Your task to perform on an android device: toggle improve location accuracy Image 0: 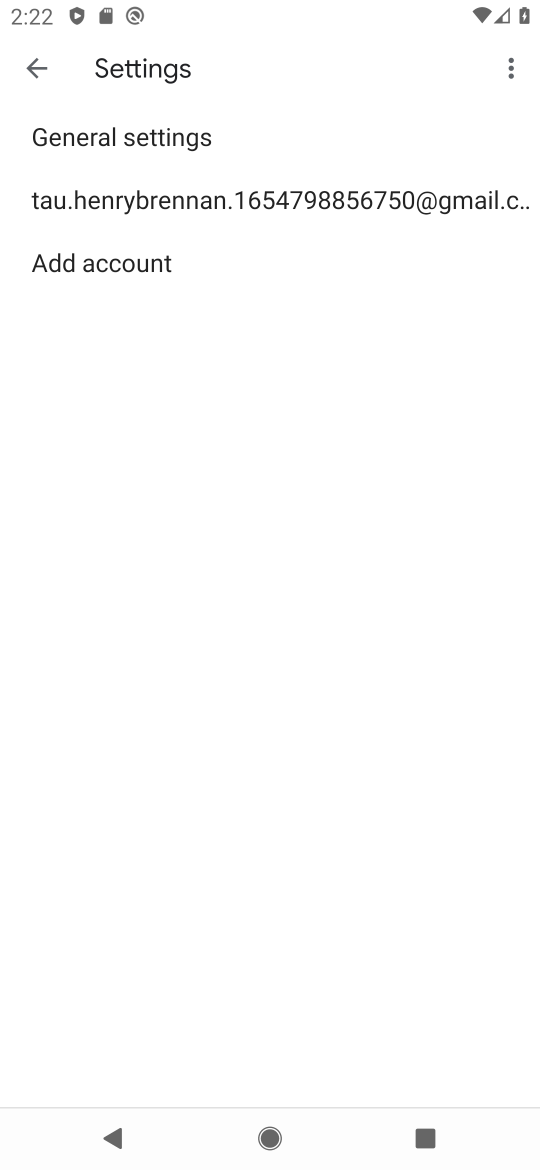
Step 0: press home button
Your task to perform on an android device: toggle improve location accuracy Image 1: 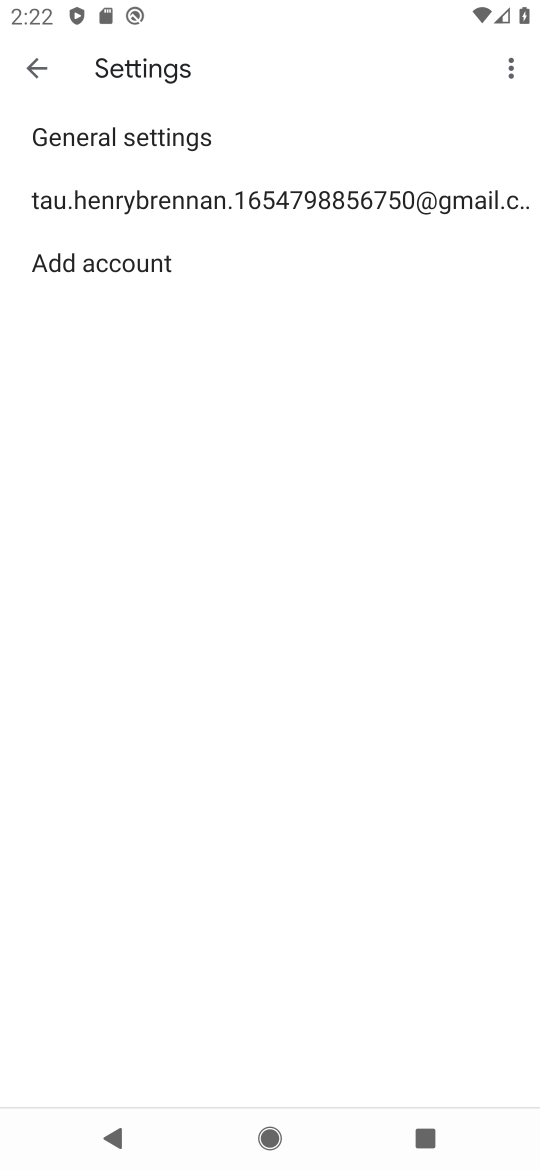
Step 1: press home button
Your task to perform on an android device: toggle improve location accuracy Image 2: 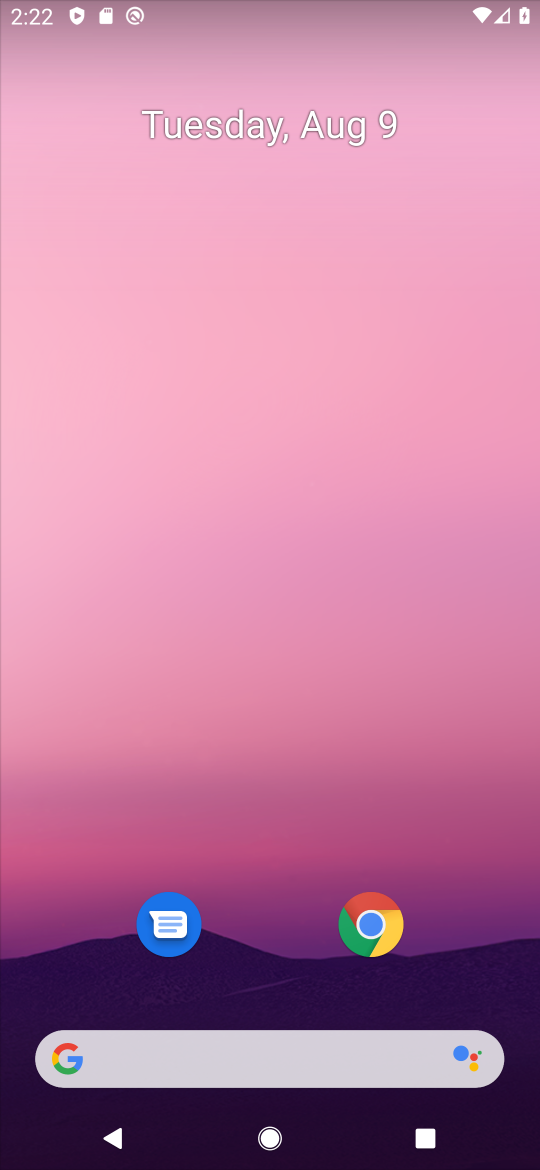
Step 2: drag from (274, 872) to (286, 0)
Your task to perform on an android device: toggle improve location accuracy Image 3: 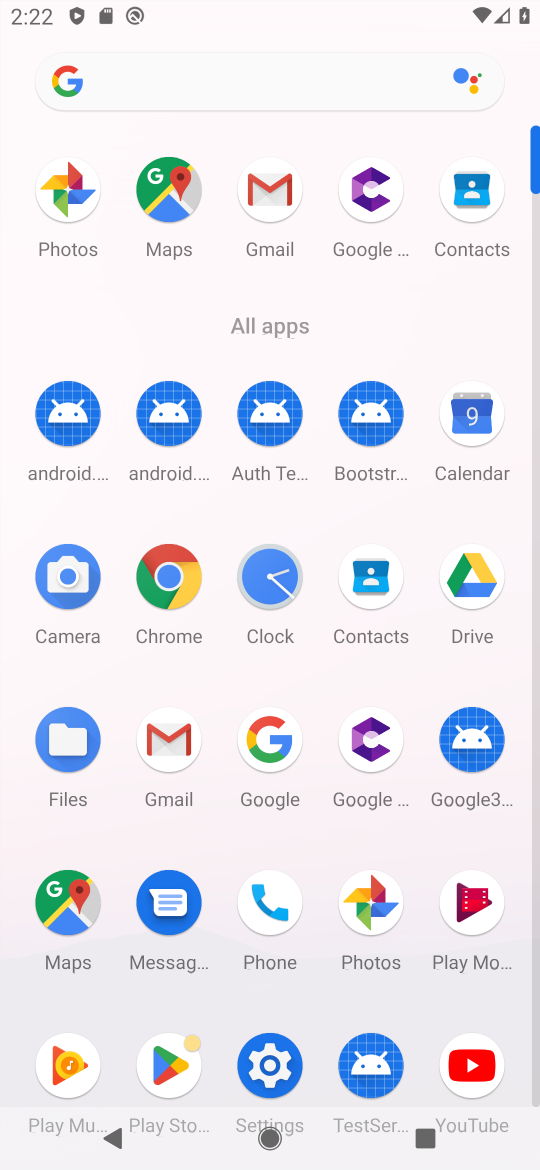
Step 3: click (273, 1063)
Your task to perform on an android device: toggle improve location accuracy Image 4: 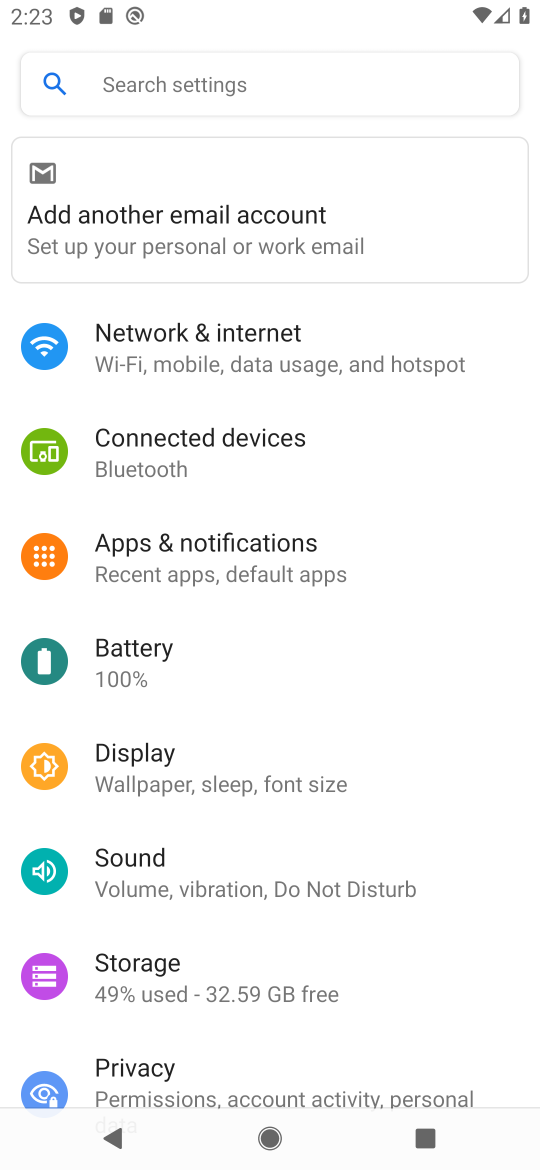
Step 4: drag from (266, 700) to (297, 47)
Your task to perform on an android device: toggle improve location accuracy Image 5: 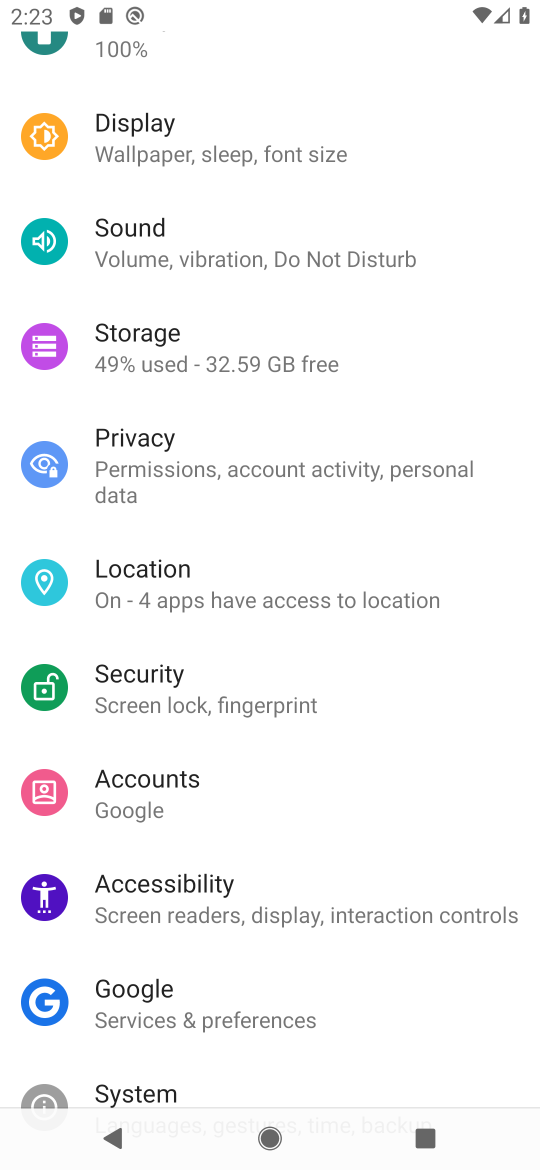
Step 5: click (238, 590)
Your task to perform on an android device: toggle improve location accuracy Image 6: 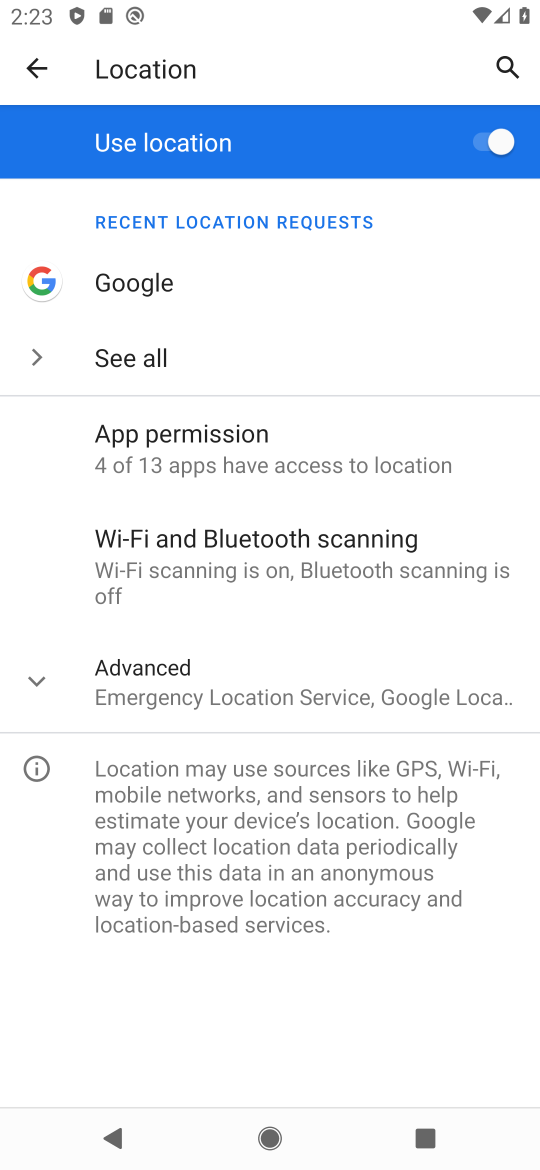
Step 6: click (39, 671)
Your task to perform on an android device: toggle improve location accuracy Image 7: 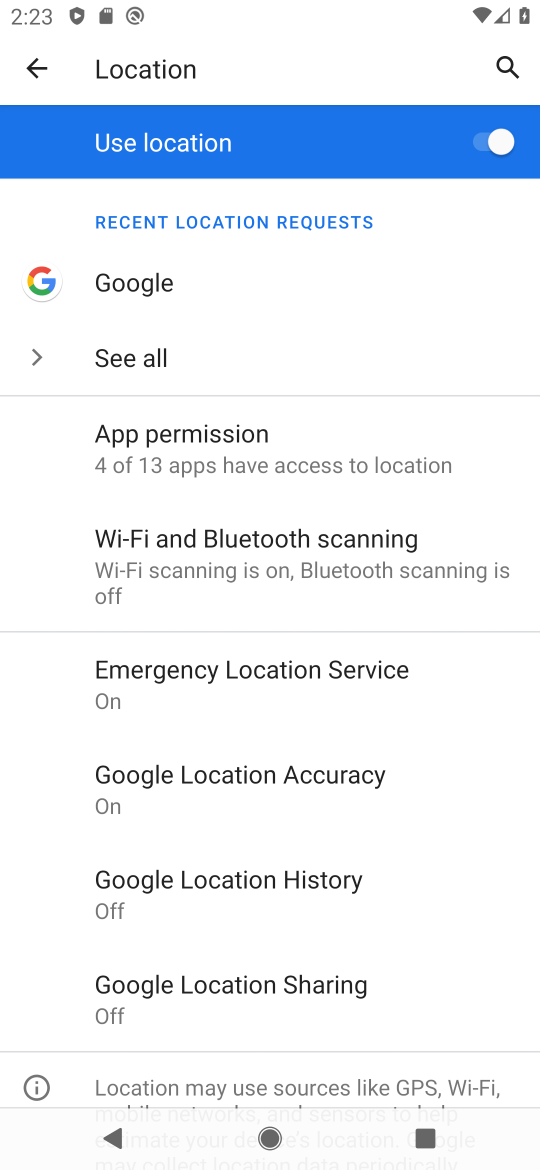
Step 7: click (254, 782)
Your task to perform on an android device: toggle improve location accuracy Image 8: 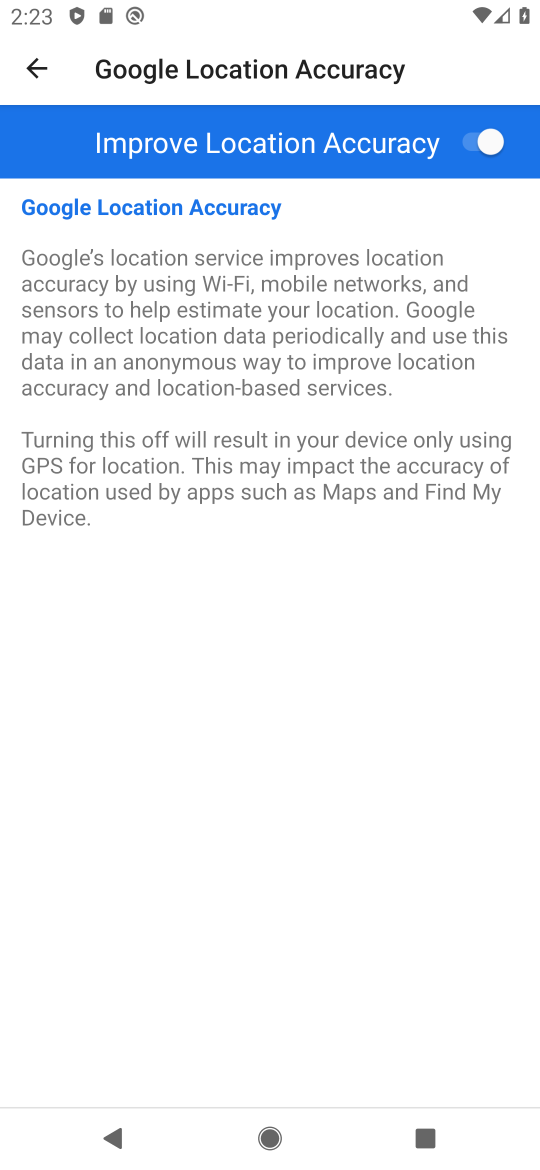
Step 8: click (475, 143)
Your task to perform on an android device: toggle improve location accuracy Image 9: 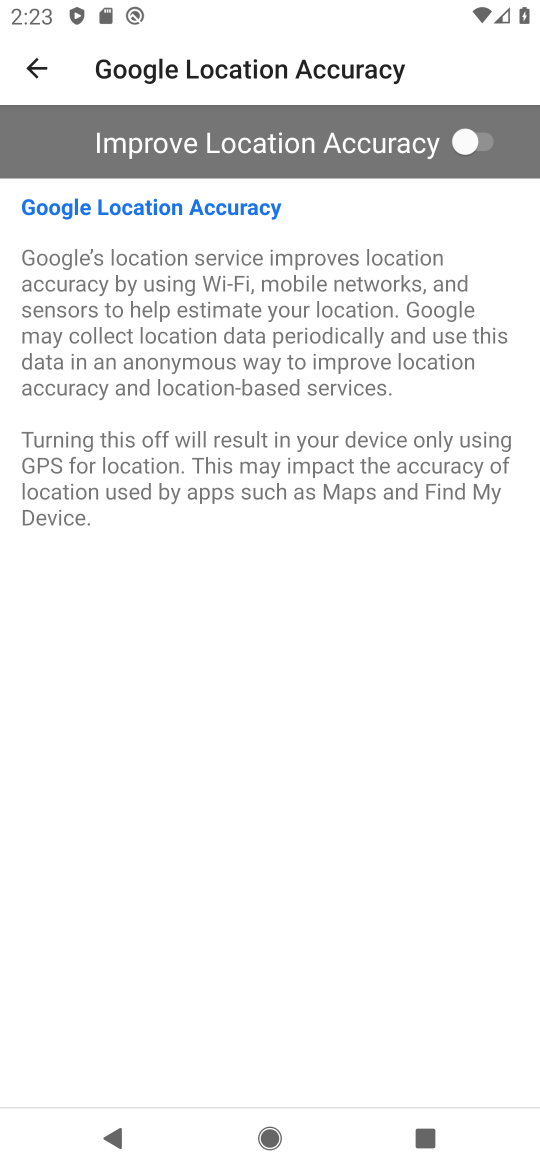
Step 9: task complete